Your task to perform on an android device: Open privacy settings Image 0: 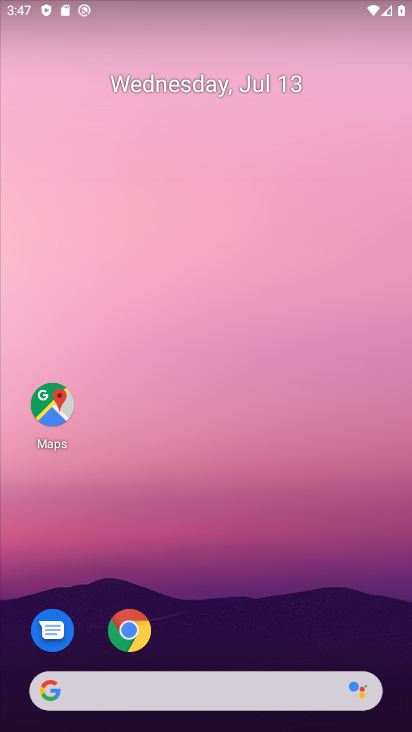
Step 0: drag from (194, 550) to (236, 287)
Your task to perform on an android device: Open privacy settings Image 1: 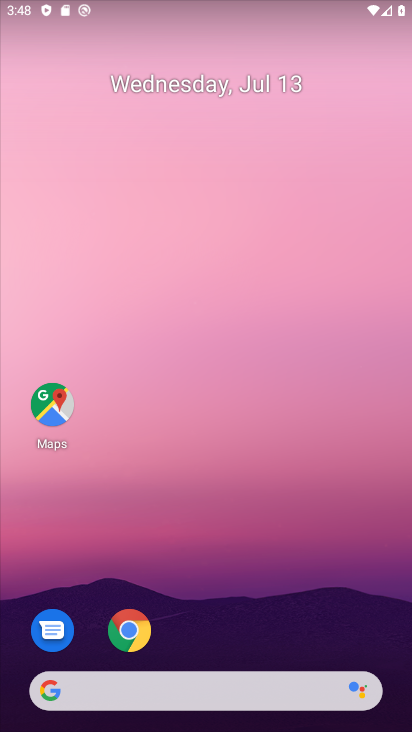
Step 1: drag from (291, 600) to (303, 19)
Your task to perform on an android device: Open privacy settings Image 2: 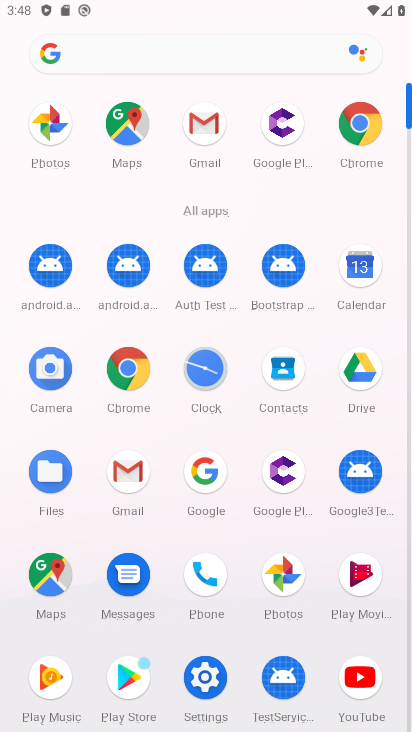
Step 2: click (199, 658)
Your task to perform on an android device: Open privacy settings Image 3: 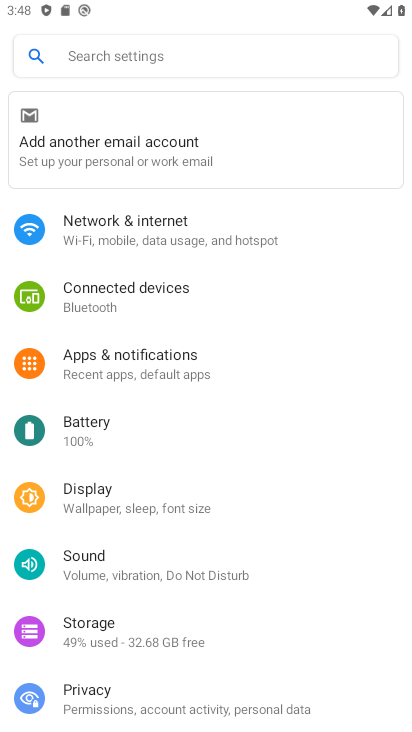
Step 3: click (97, 686)
Your task to perform on an android device: Open privacy settings Image 4: 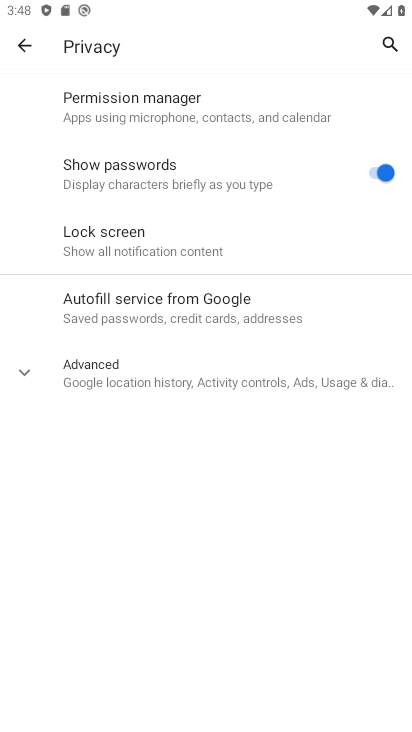
Step 4: task complete